Your task to perform on an android device: Go to Android settings Image 0: 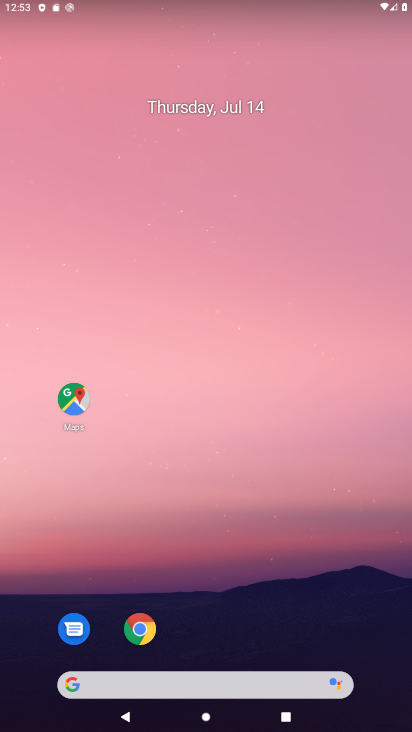
Step 0: drag from (221, 658) to (242, 185)
Your task to perform on an android device: Go to Android settings Image 1: 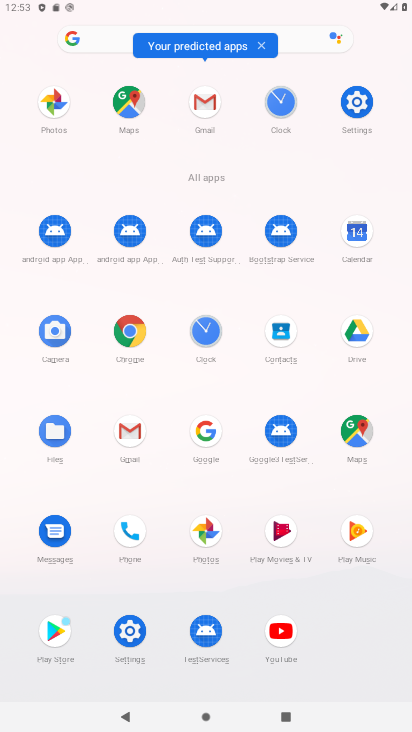
Step 1: click (128, 634)
Your task to perform on an android device: Go to Android settings Image 2: 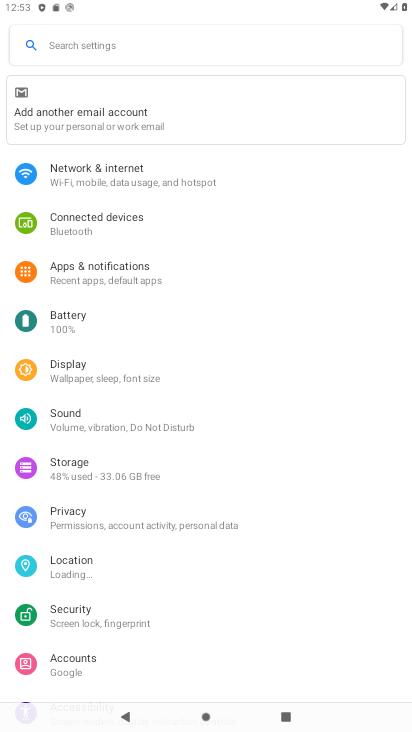
Step 2: task complete